Your task to perform on an android device: set default search engine in the chrome app Image 0: 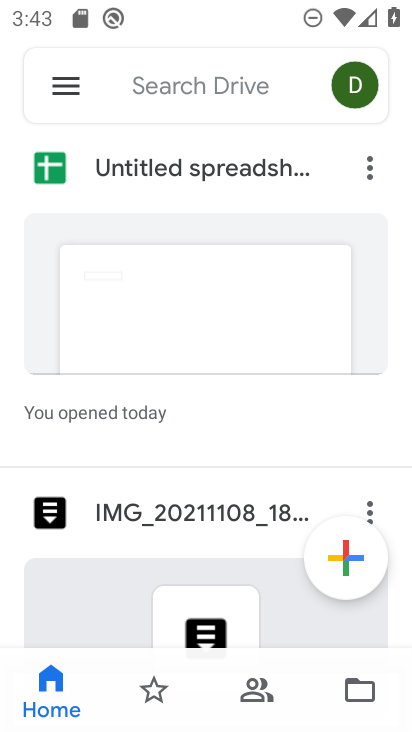
Step 0: press home button
Your task to perform on an android device: set default search engine in the chrome app Image 1: 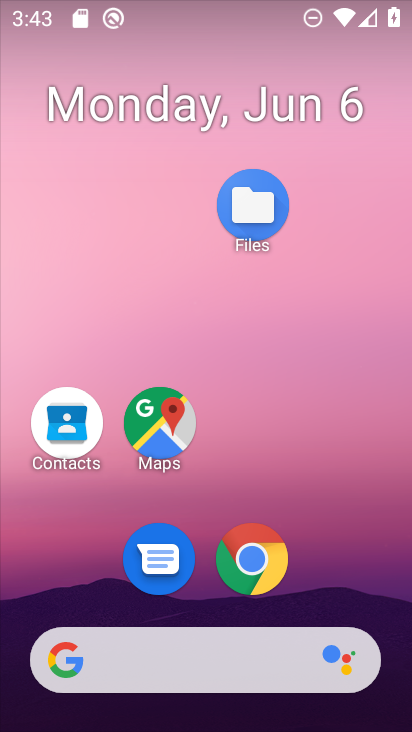
Step 1: click (99, 108)
Your task to perform on an android device: set default search engine in the chrome app Image 2: 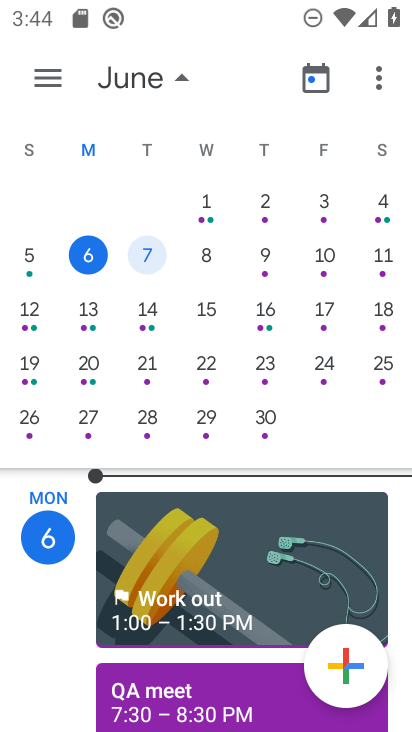
Step 2: press home button
Your task to perform on an android device: set default search engine in the chrome app Image 3: 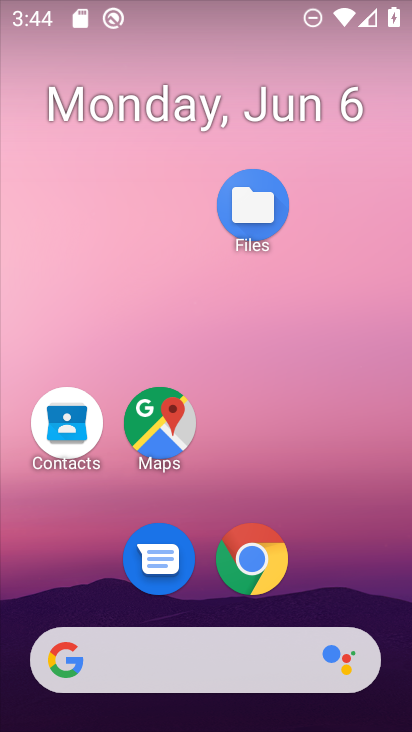
Step 3: click (262, 580)
Your task to perform on an android device: set default search engine in the chrome app Image 4: 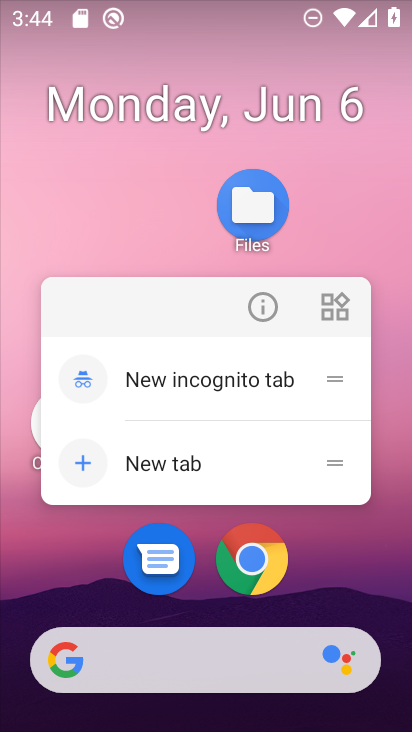
Step 4: click (256, 581)
Your task to perform on an android device: set default search engine in the chrome app Image 5: 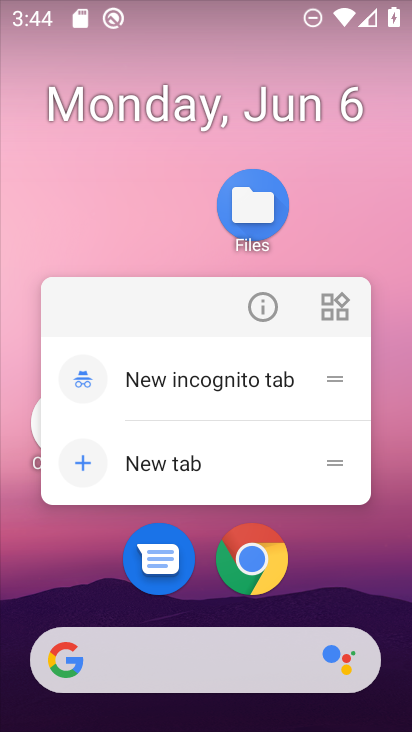
Step 5: click (256, 581)
Your task to perform on an android device: set default search engine in the chrome app Image 6: 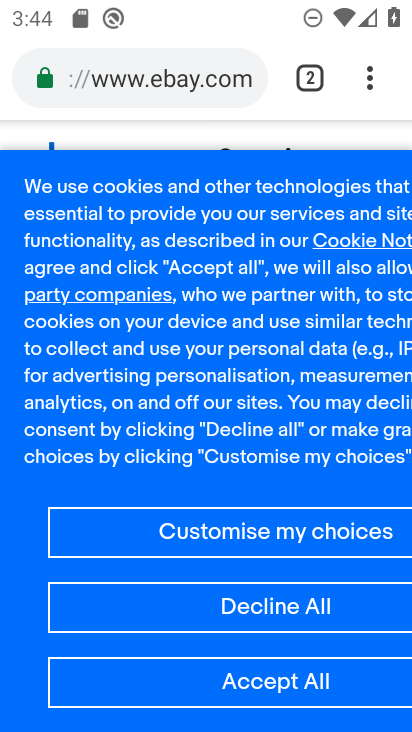
Step 6: click (373, 78)
Your task to perform on an android device: set default search engine in the chrome app Image 7: 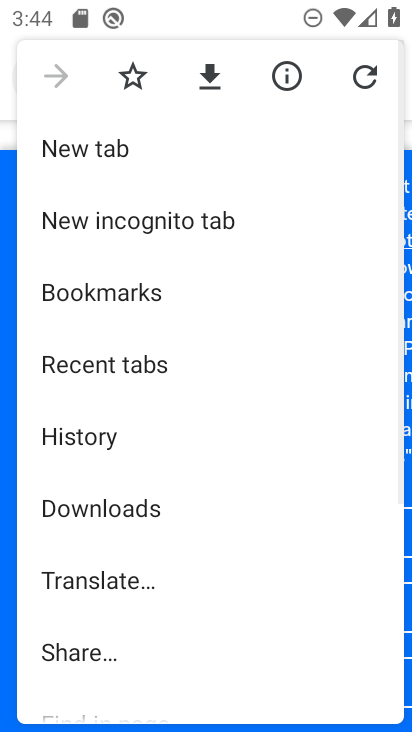
Step 7: drag from (178, 564) to (251, 217)
Your task to perform on an android device: set default search engine in the chrome app Image 8: 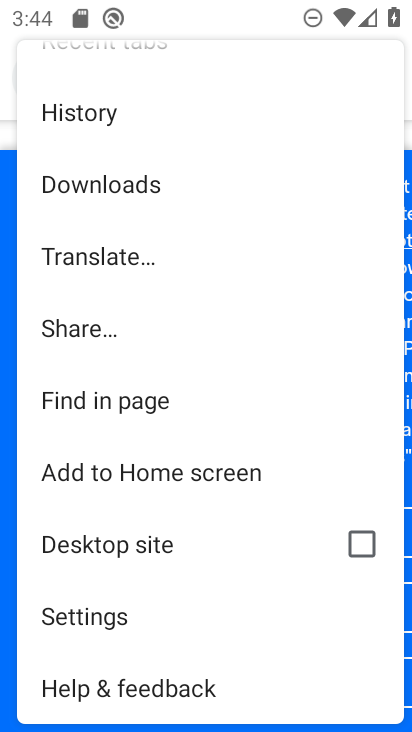
Step 8: click (140, 607)
Your task to perform on an android device: set default search engine in the chrome app Image 9: 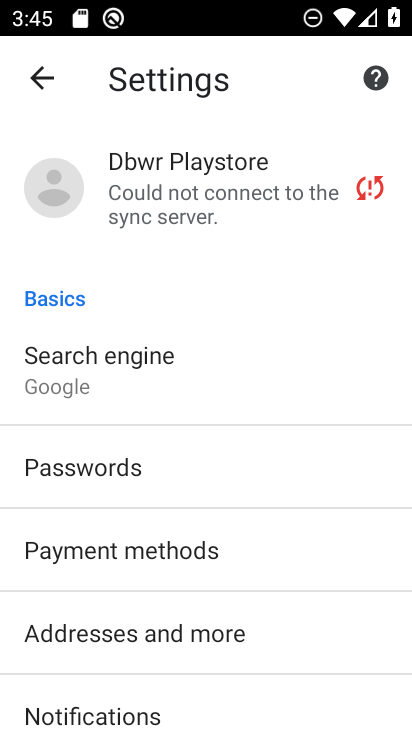
Step 9: drag from (154, 685) to (193, 366)
Your task to perform on an android device: set default search engine in the chrome app Image 10: 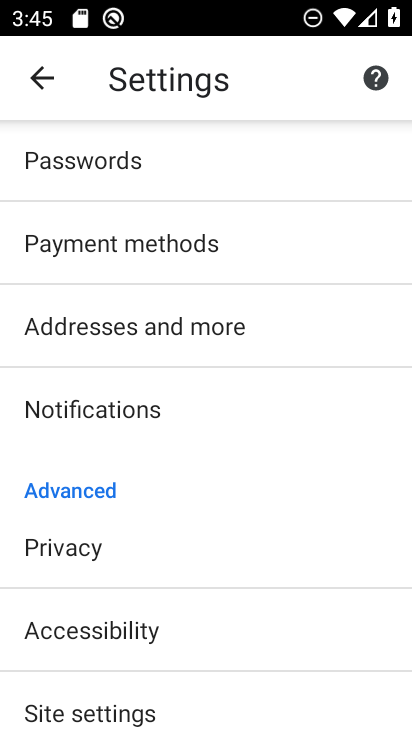
Step 10: drag from (190, 605) to (182, 359)
Your task to perform on an android device: set default search engine in the chrome app Image 11: 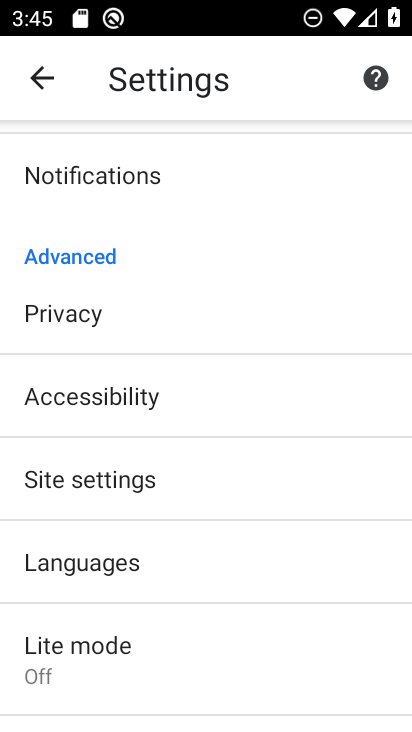
Step 11: click (141, 473)
Your task to perform on an android device: set default search engine in the chrome app Image 12: 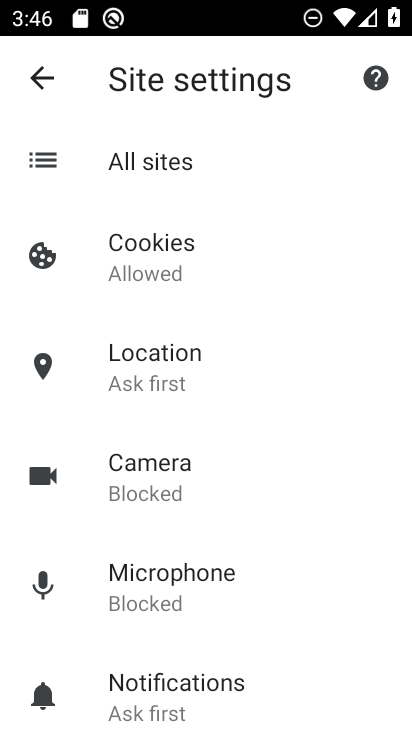
Step 12: click (59, 82)
Your task to perform on an android device: set default search engine in the chrome app Image 13: 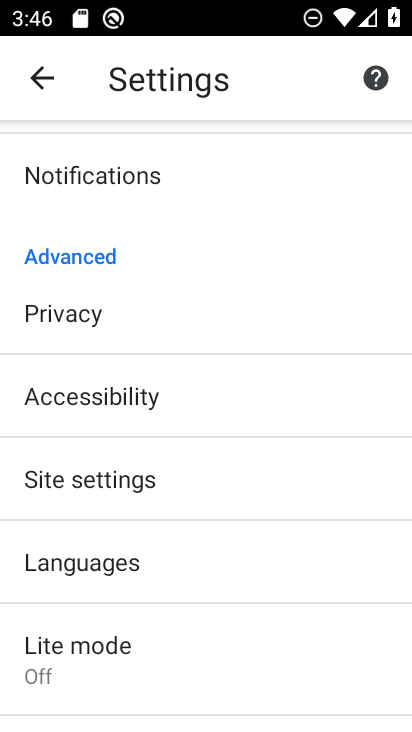
Step 13: drag from (99, 301) to (165, 684)
Your task to perform on an android device: set default search engine in the chrome app Image 14: 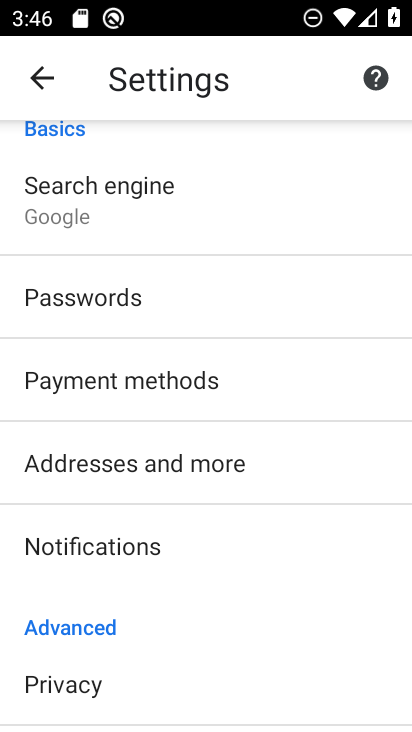
Step 14: drag from (149, 260) to (166, 511)
Your task to perform on an android device: set default search engine in the chrome app Image 15: 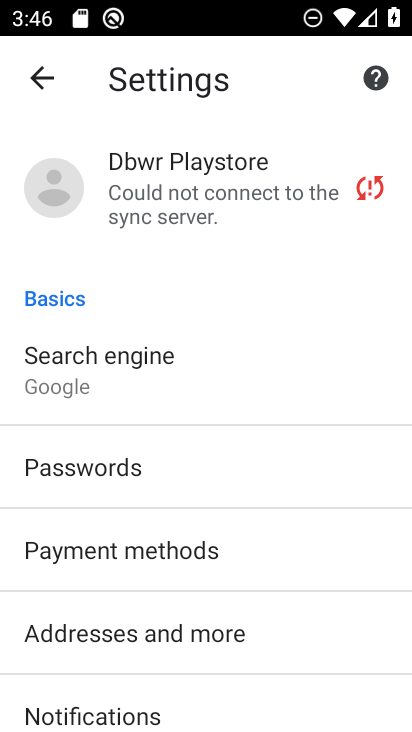
Step 15: click (150, 376)
Your task to perform on an android device: set default search engine in the chrome app Image 16: 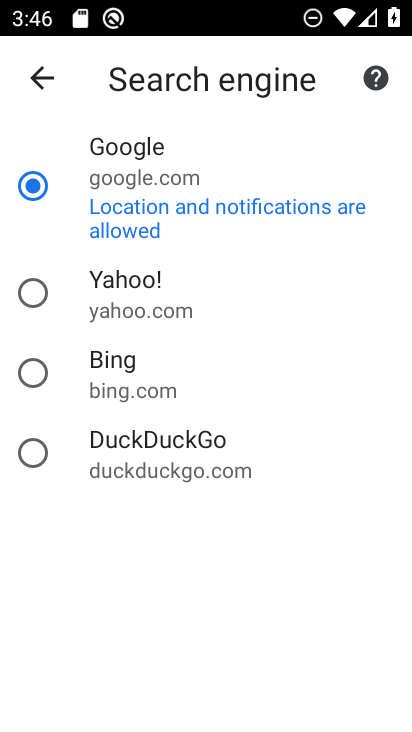
Step 16: task complete